Your task to perform on an android device: Go to Yahoo.com Image 0: 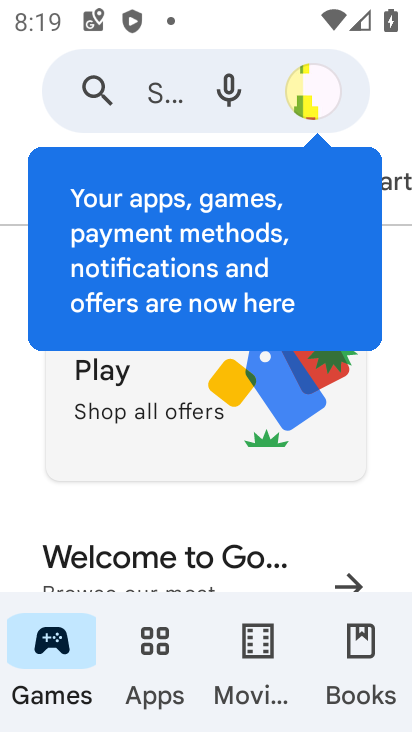
Step 0: press home button
Your task to perform on an android device: Go to Yahoo.com Image 1: 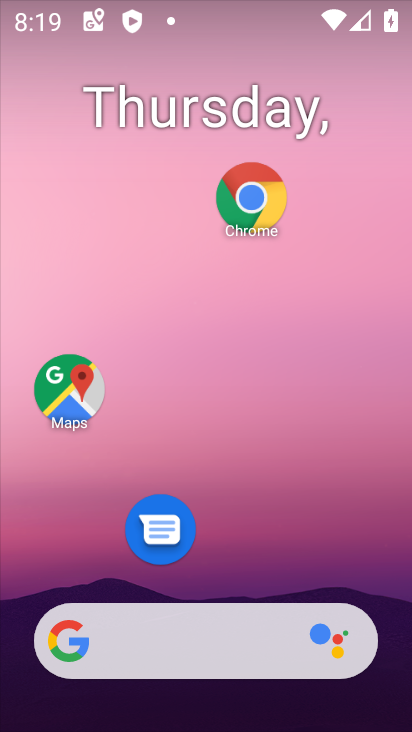
Step 1: click (238, 534)
Your task to perform on an android device: Go to Yahoo.com Image 2: 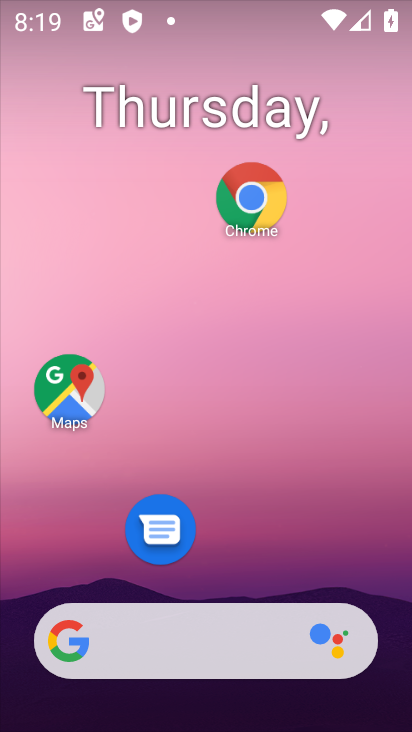
Step 2: click (259, 204)
Your task to perform on an android device: Go to Yahoo.com Image 3: 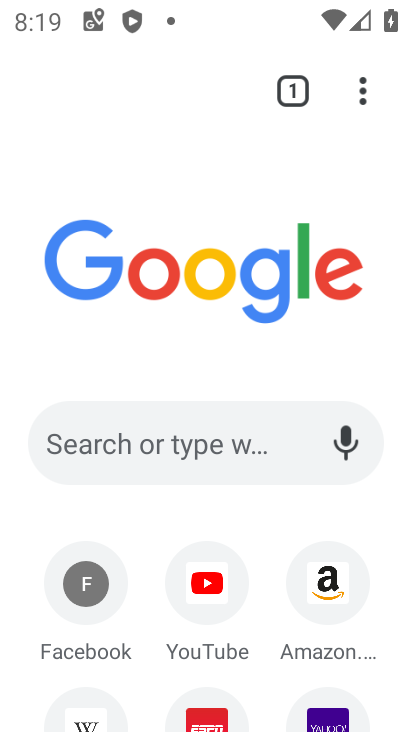
Step 3: click (330, 722)
Your task to perform on an android device: Go to Yahoo.com Image 4: 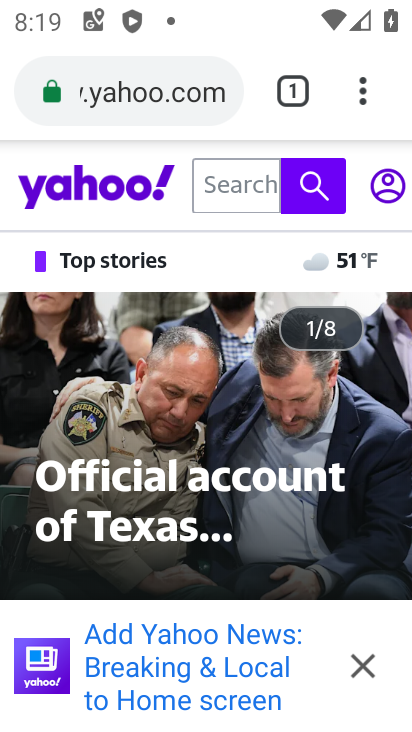
Step 4: task complete